Your task to perform on an android device: change the clock display to show seconds Image 0: 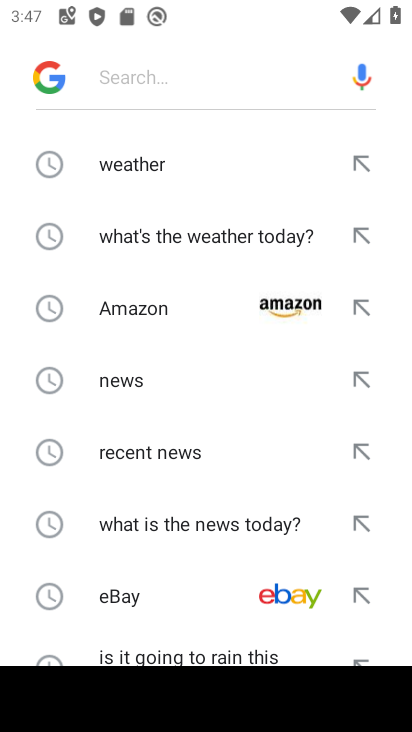
Step 0: press home button
Your task to perform on an android device: change the clock display to show seconds Image 1: 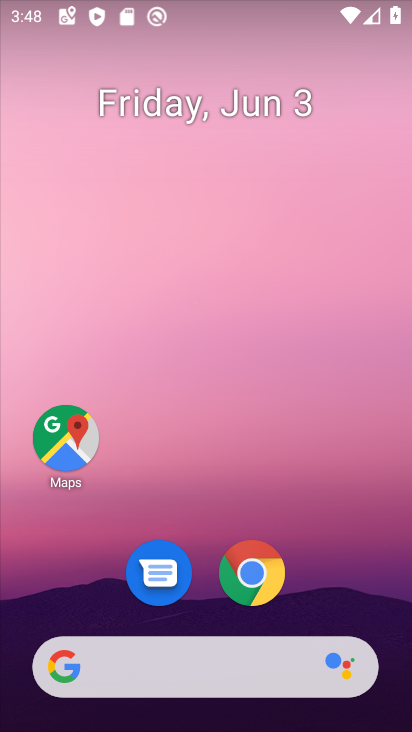
Step 1: drag from (392, 681) to (370, 113)
Your task to perform on an android device: change the clock display to show seconds Image 2: 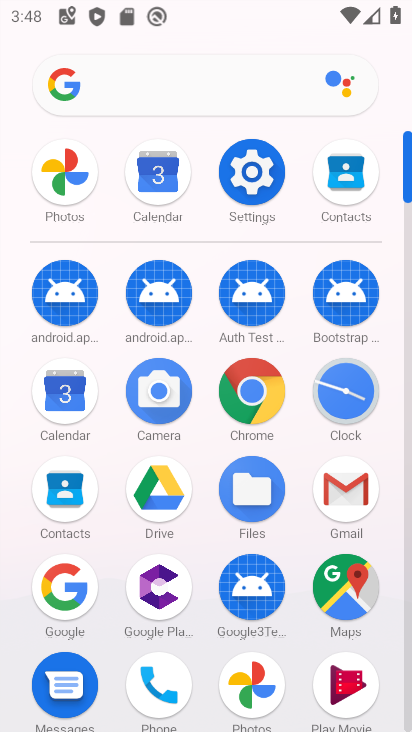
Step 2: click (362, 387)
Your task to perform on an android device: change the clock display to show seconds Image 3: 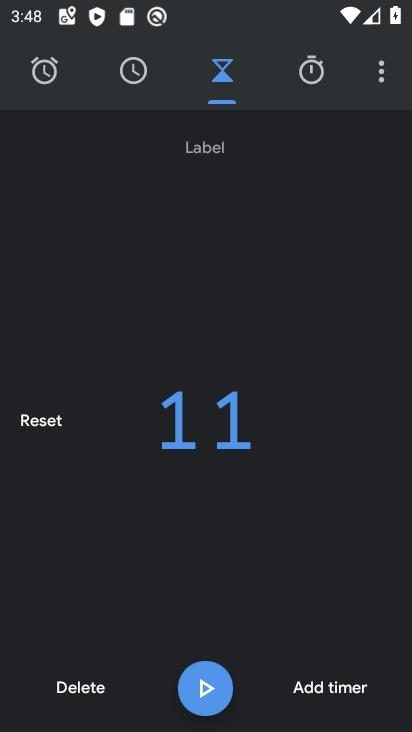
Step 3: click (386, 62)
Your task to perform on an android device: change the clock display to show seconds Image 4: 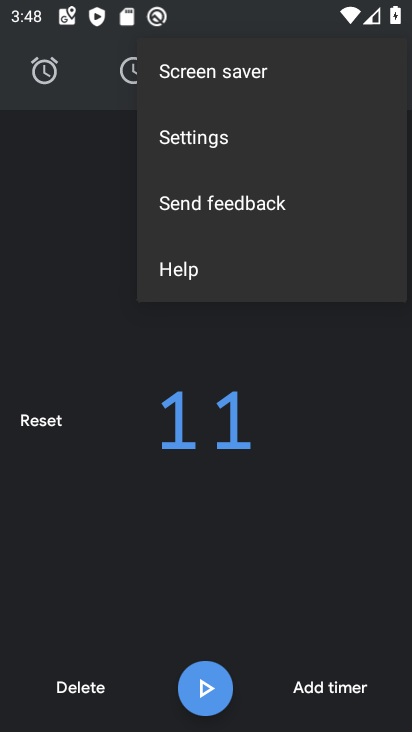
Step 4: click (204, 142)
Your task to perform on an android device: change the clock display to show seconds Image 5: 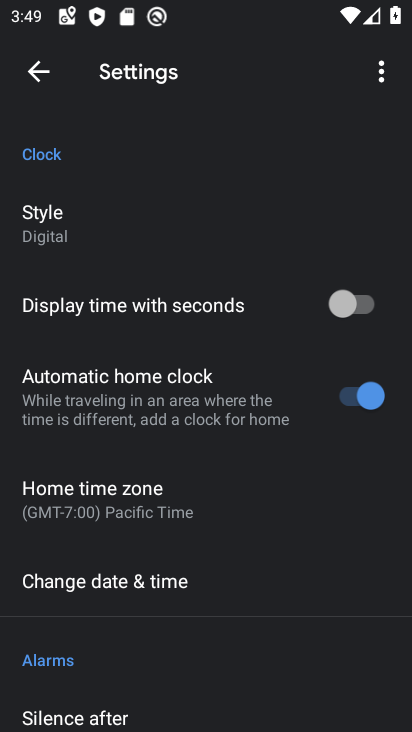
Step 5: click (362, 309)
Your task to perform on an android device: change the clock display to show seconds Image 6: 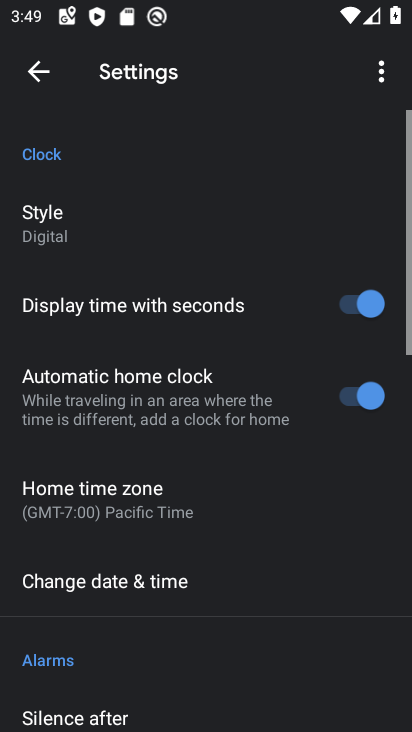
Step 6: task complete